Your task to perform on an android device: turn on the 12-hour format for clock Image 0: 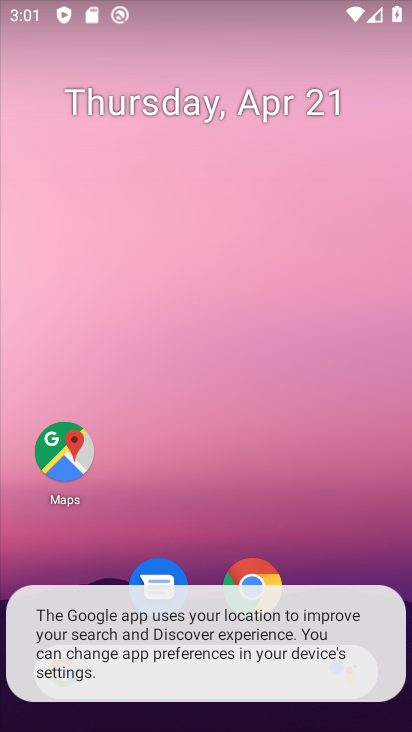
Step 0: drag from (297, 536) to (177, 73)
Your task to perform on an android device: turn on the 12-hour format for clock Image 1: 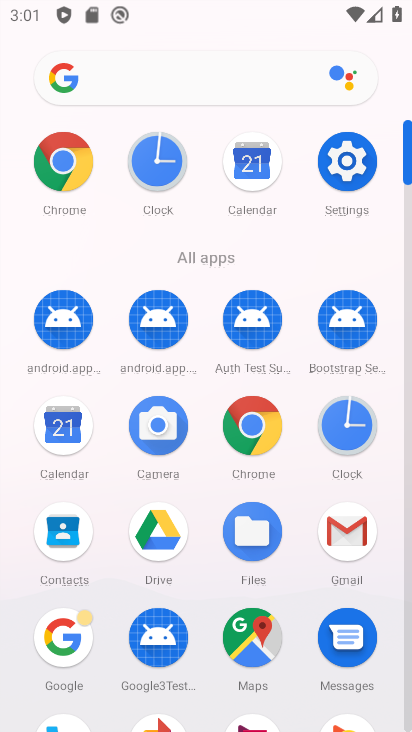
Step 1: click (342, 431)
Your task to perform on an android device: turn on the 12-hour format for clock Image 2: 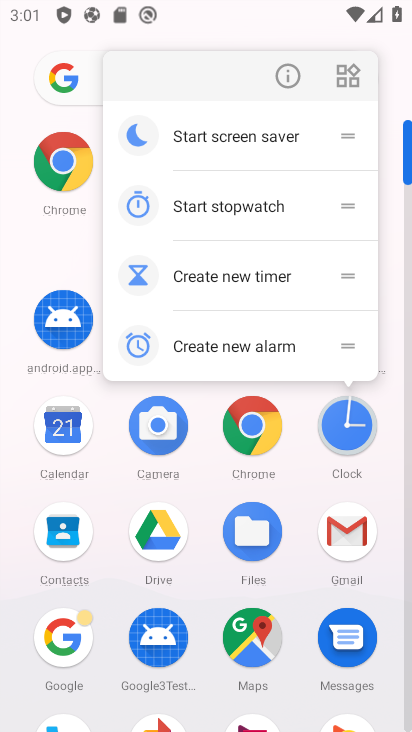
Step 2: click (342, 431)
Your task to perform on an android device: turn on the 12-hour format for clock Image 3: 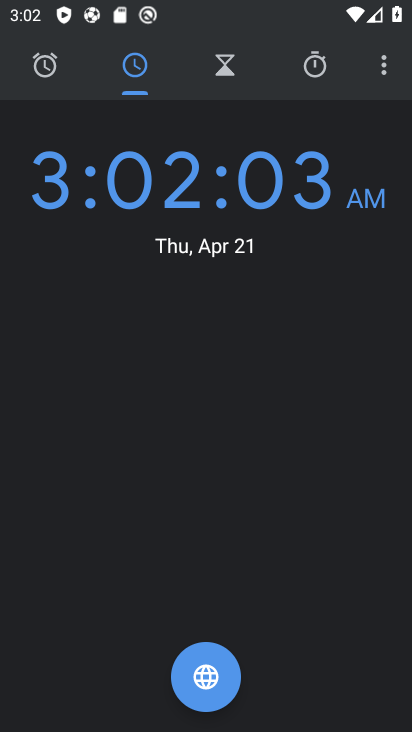
Step 3: drag from (295, 631) to (232, 240)
Your task to perform on an android device: turn on the 12-hour format for clock Image 4: 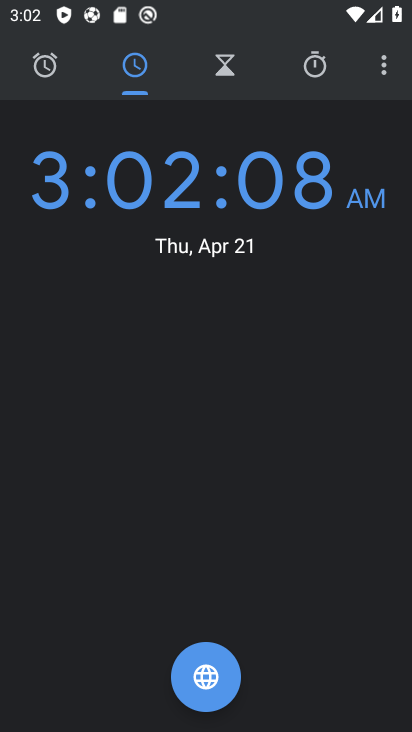
Step 4: click (382, 73)
Your task to perform on an android device: turn on the 12-hour format for clock Image 5: 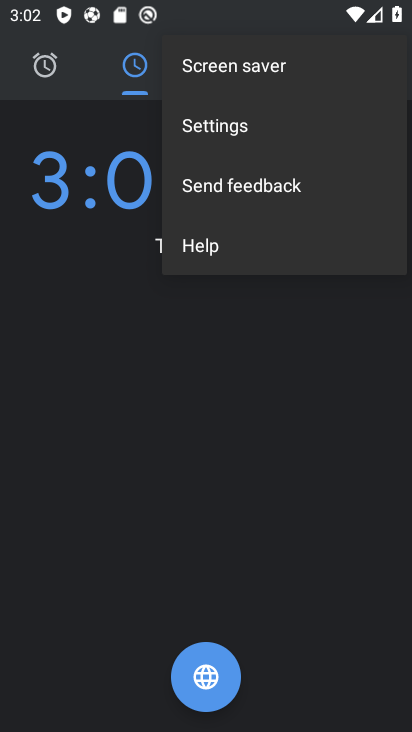
Step 5: click (260, 129)
Your task to perform on an android device: turn on the 12-hour format for clock Image 6: 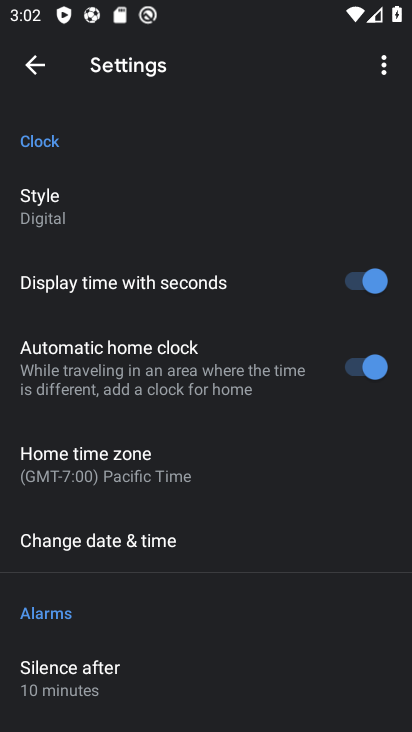
Step 6: click (72, 542)
Your task to perform on an android device: turn on the 12-hour format for clock Image 7: 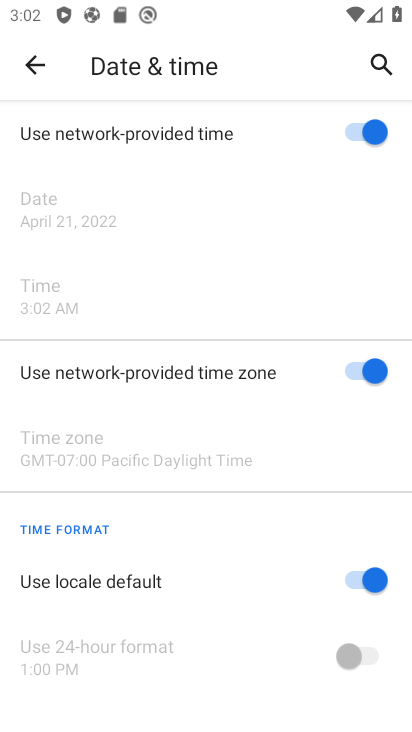
Step 7: task complete